Your task to perform on an android device: change timer sound Image 0: 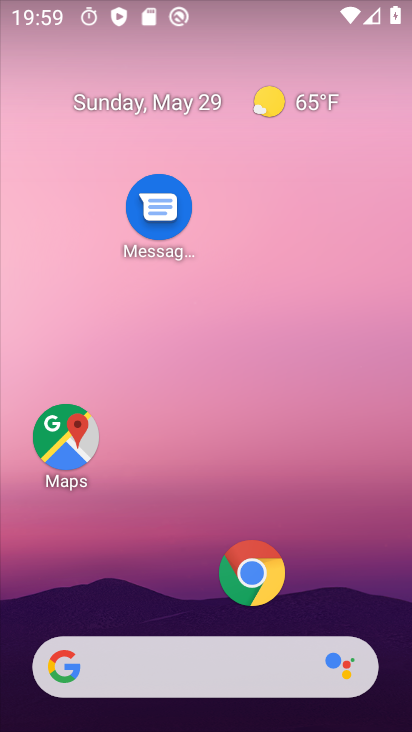
Step 0: drag from (187, 623) to (256, 260)
Your task to perform on an android device: change timer sound Image 1: 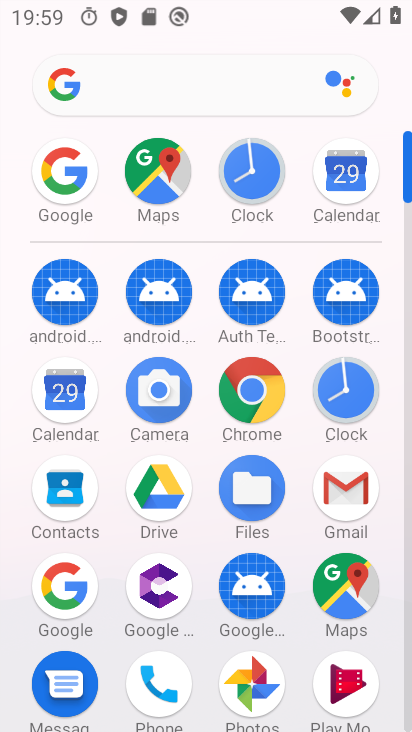
Step 1: click (347, 391)
Your task to perform on an android device: change timer sound Image 2: 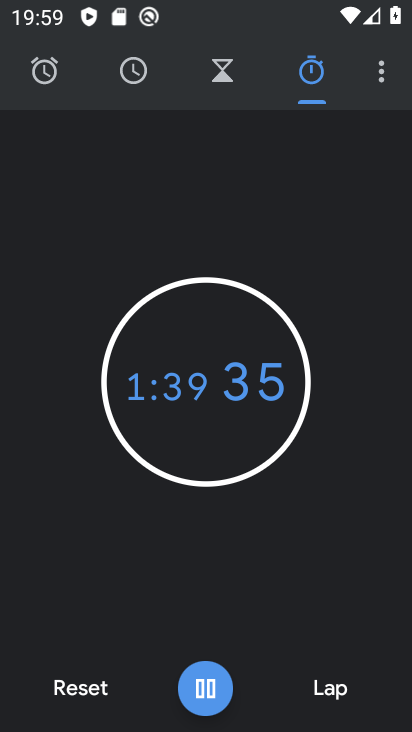
Step 2: click (380, 73)
Your task to perform on an android device: change timer sound Image 3: 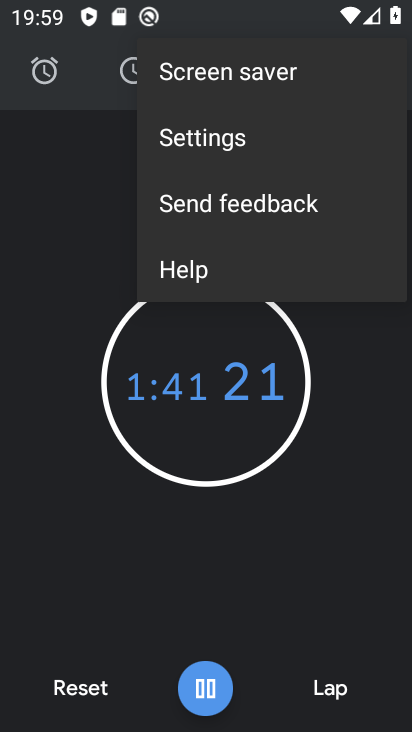
Step 3: click (236, 131)
Your task to perform on an android device: change timer sound Image 4: 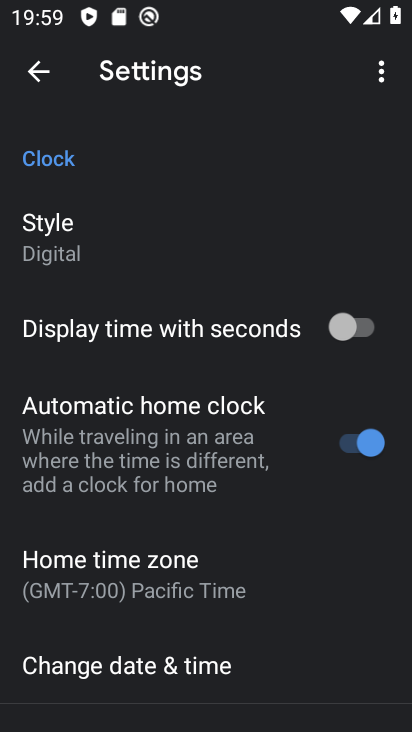
Step 4: drag from (246, 699) to (273, 356)
Your task to perform on an android device: change timer sound Image 5: 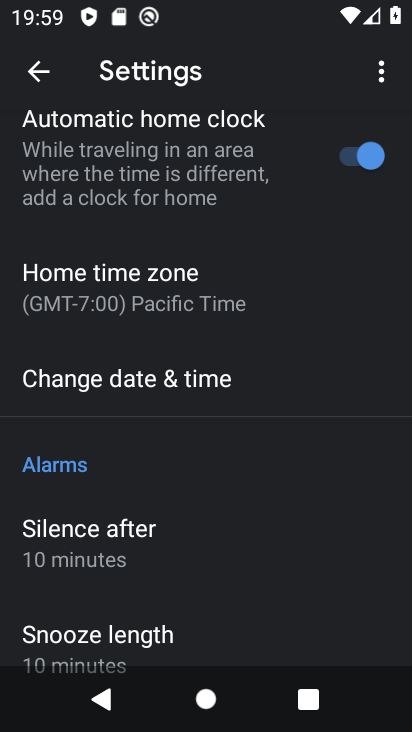
Step 5: drag from (194, 586) to (198, 275)
Your task to perform on an android device: change timer sound Image 6: 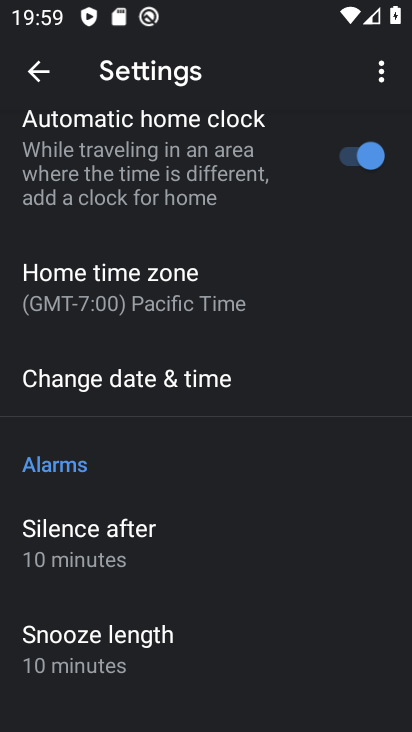
Step 6: drag from (236, 596) to (252, 221)
Your task to perform on an android device: change timer sound Image 7: 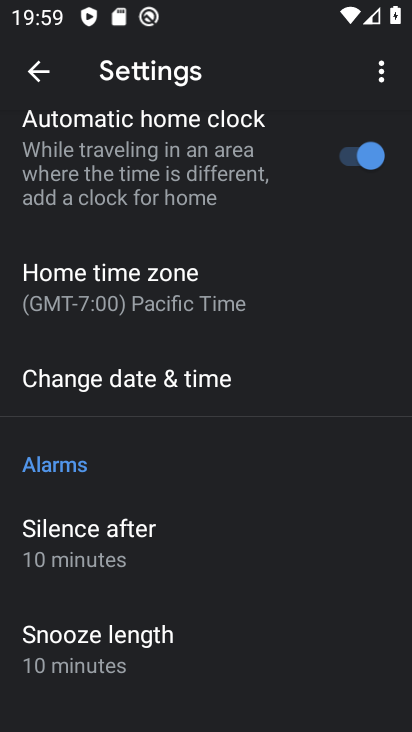
Step 7: drag from (183, 469) to (204, 192)
Your task to perform on an android device: change timer sound Image 8: 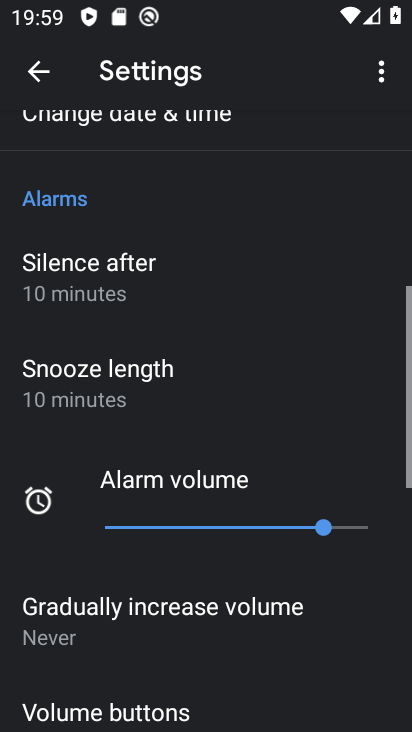
Step 8: drag from (250, 576) to (258, 292)
Your task to perform on an android device: change timer sound Image 9: 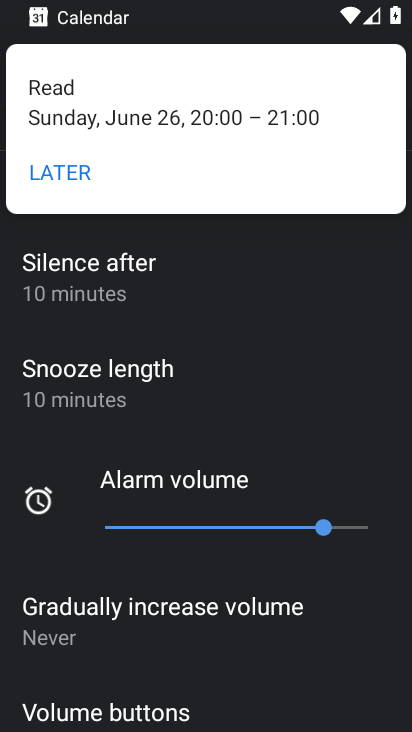
Step 9: drag from (225, 649) to (250, 264)
Your task to perform on an android device: change timer sound Image 10: 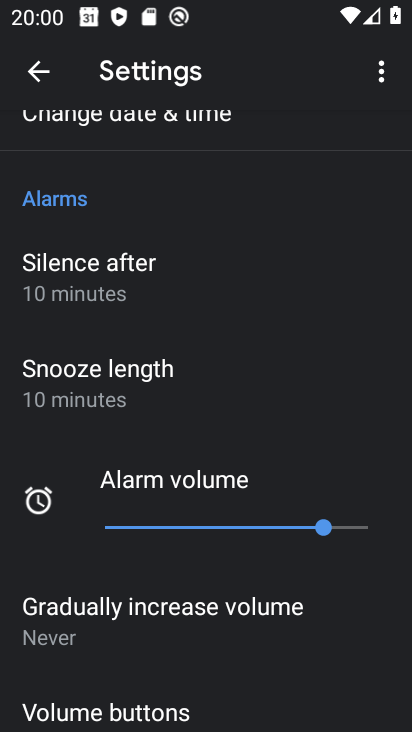
Step 10: drag from (175, 450) to (226, 120)
Your task to perform on an android device: change timer sound Image 11: 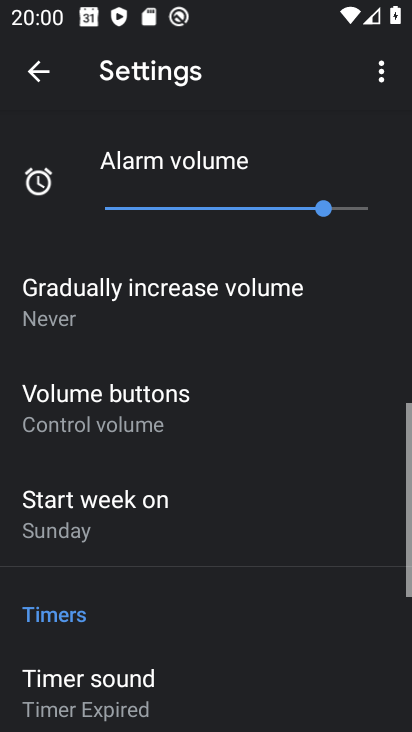
Step 11: drag from (220, 574) to (230, 226)
Your task to perform on an android device: change timer sound Image 12: 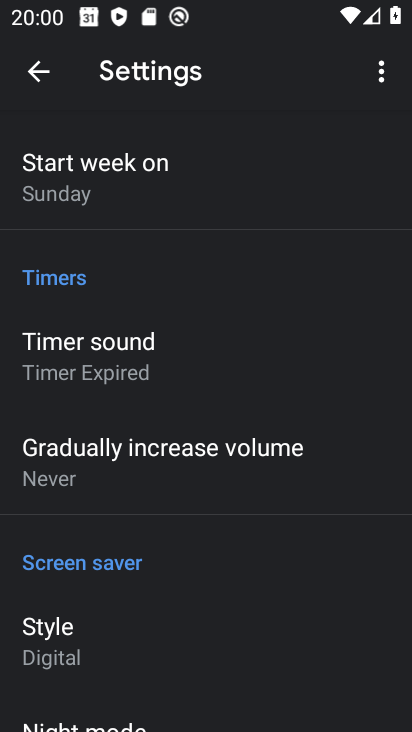
Step 12: click (123, 366)
Your task to perform on an android device: change timer sound Image 13: 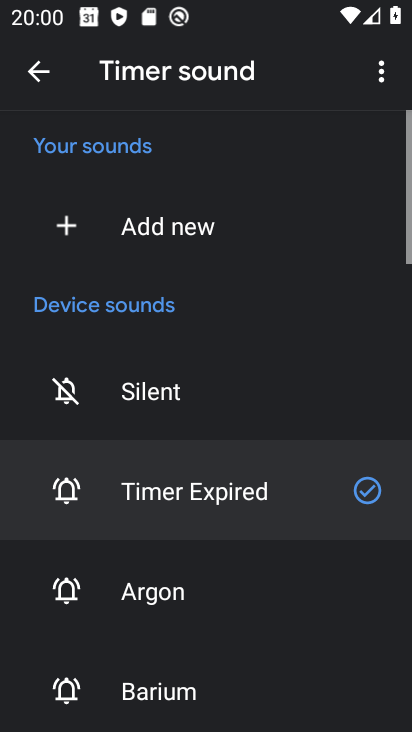
Step 13: click (196, 601)
Your task to perform on an android device: change timer sound Image 14: 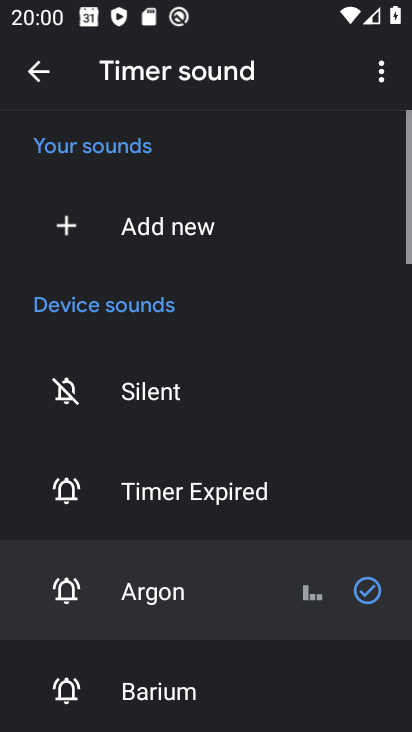
Step 14: task complete